Your task to perform on an android device: Go to Maps Image 0: 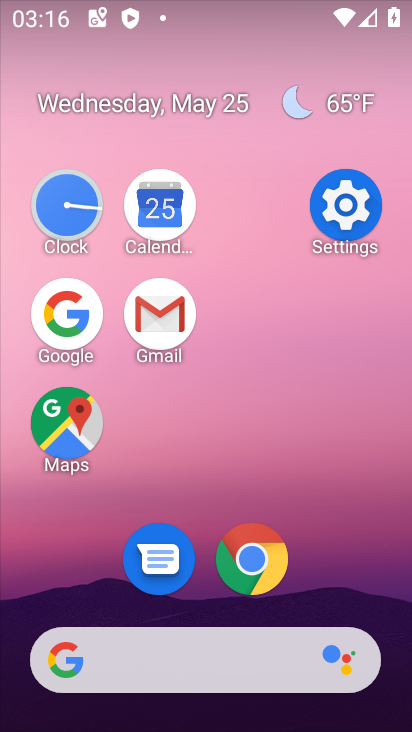
Step 0: click (57, 431)
Your task to perform on an android device: Go to Maps Image 1: 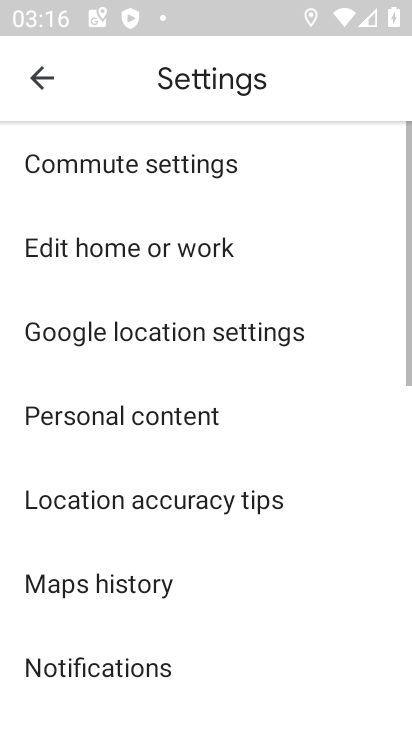
Step 1: task complete